Your task to perform on an android device: remove spam from my inbox in the gmail app Image 0: 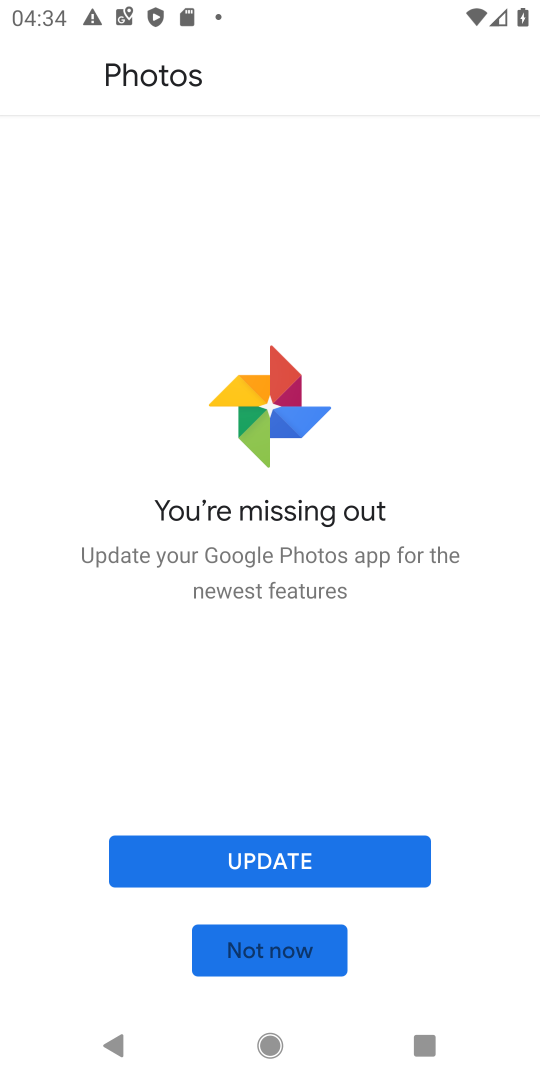
Step 0: press home button
Your task to perform on an android device: remove spam from my inbox in the gmail app Image 1: 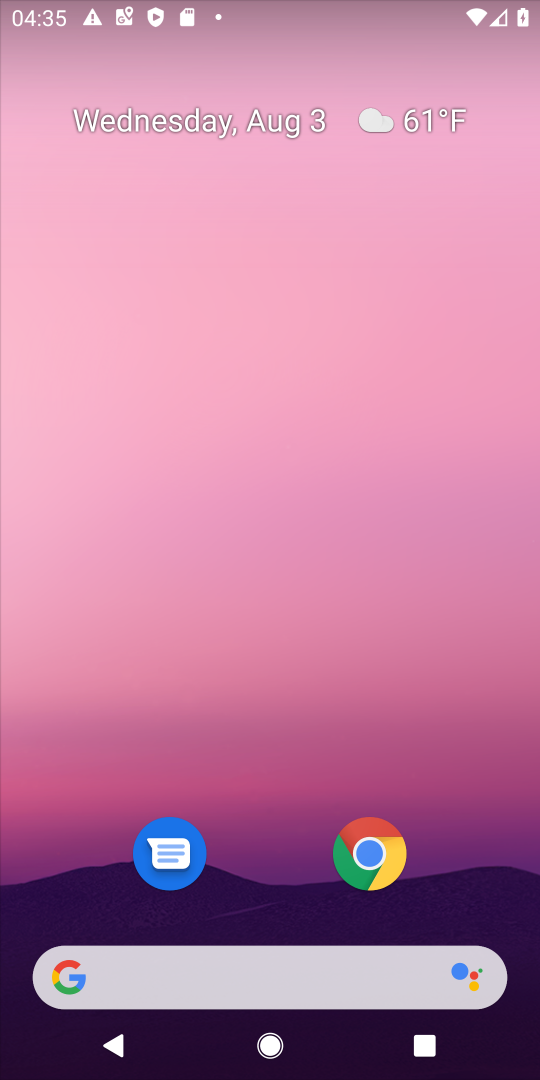
Step 1: drag from (285, 907) to (299, 63)
Your task to perform on an android device: remove spam from my inbox in the gmail app Image 2: 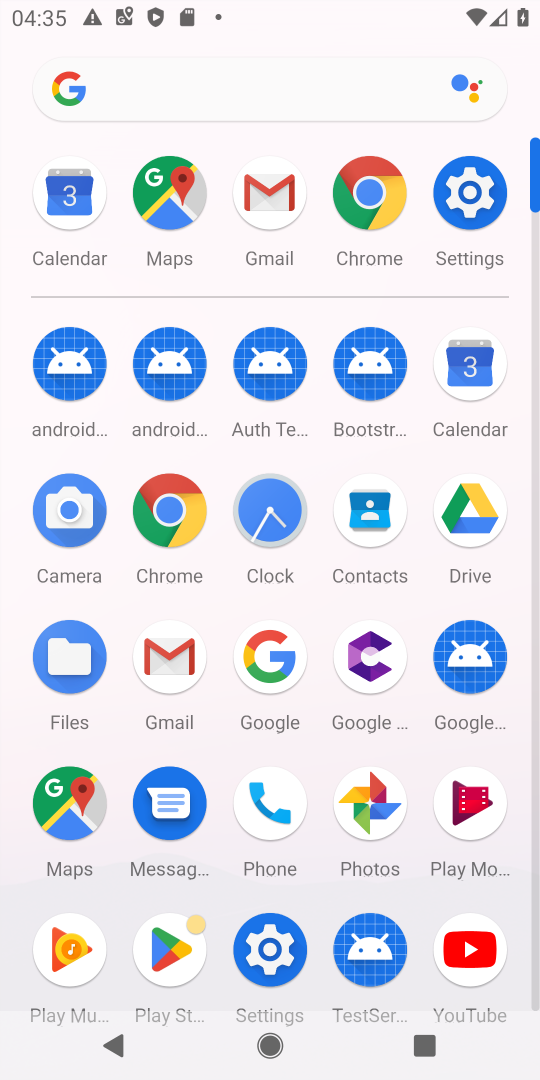
Step 2: click (161, 661)
Your task to perform on an android device: remove spam from my inbox in the gmail app Image 3: 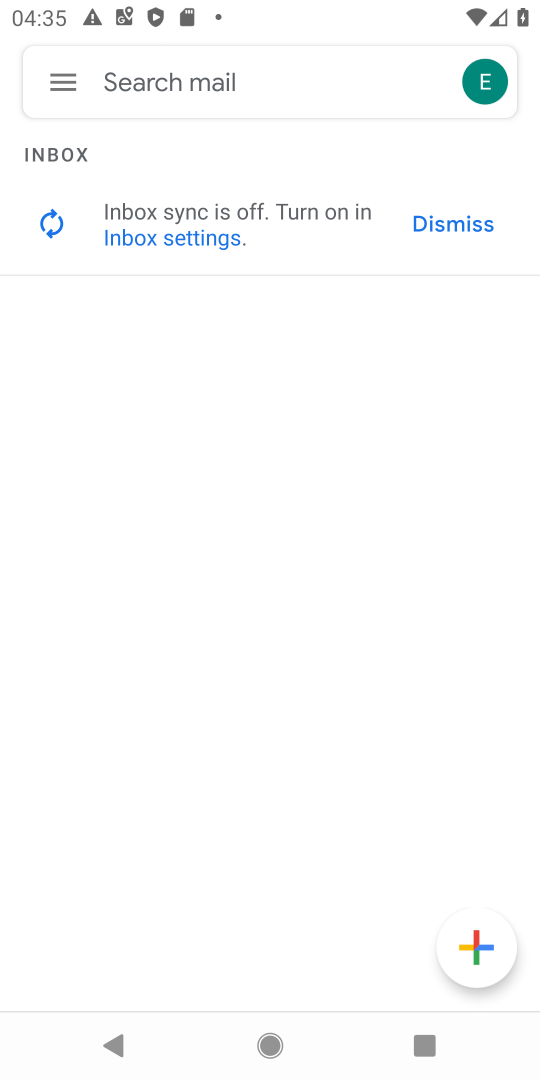
Step 3: task complete